Your task to perform on an android device: Open network settings Image 0: 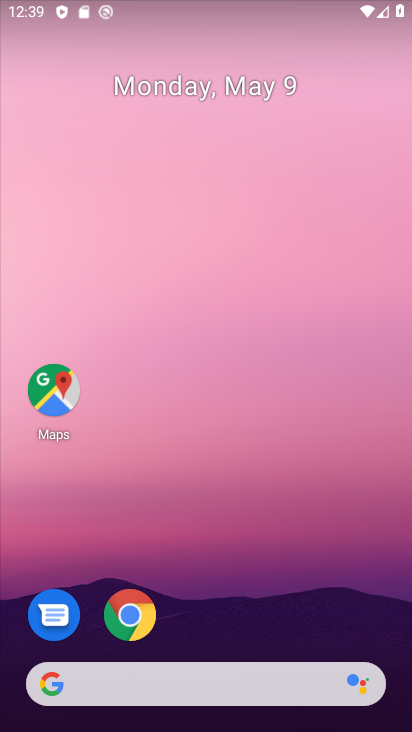
Step 0: press back button
Your task to perform on an android device: Open network settings Image 1: 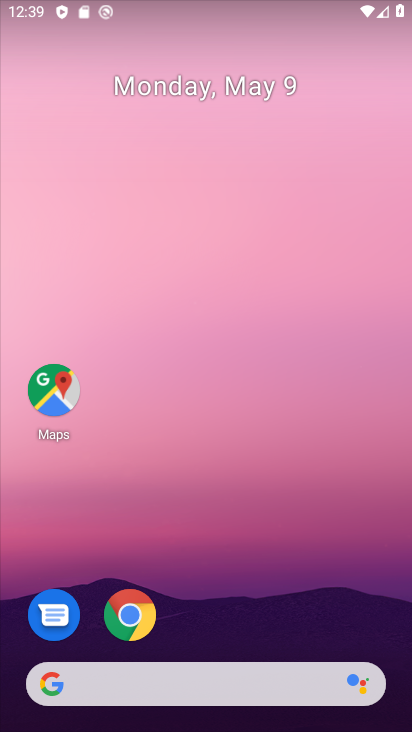
Step 1: drag from (253, 617) to (149, 1)
Your task to perform on an android device: Open network settings Image 2: 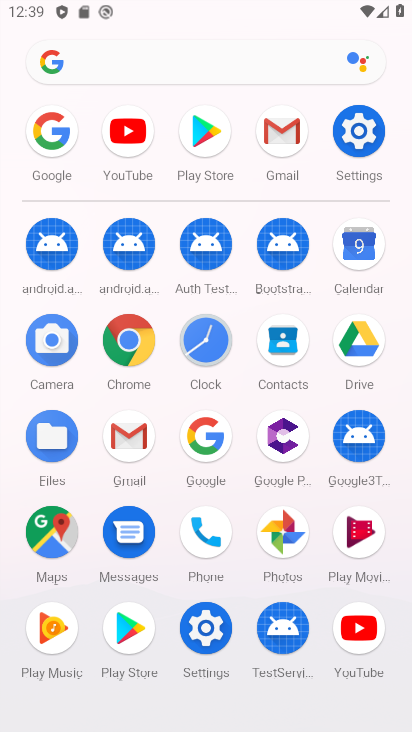
Step 2: click (358, 130)
Your task to perform on an android device: Open network settings Image 3: 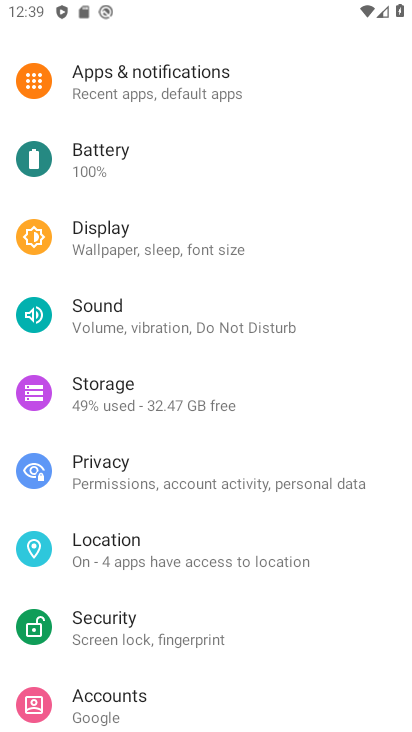
Step 3: drag from (194, 287) to (221, 396)
Your task to perform on an android device: Open network settings Image 4: 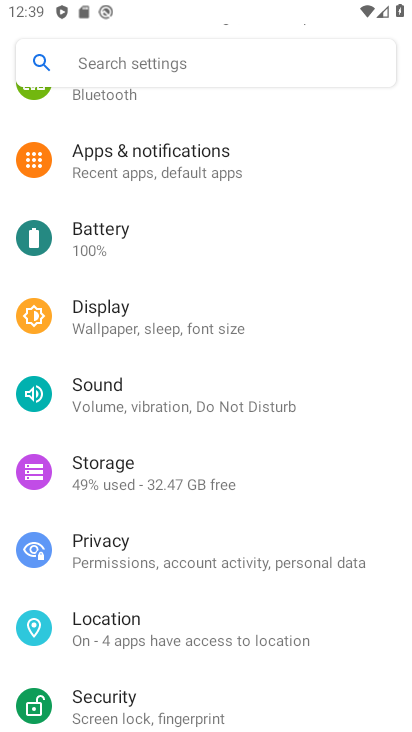
Step 4: drag from (203, 267) to (251, 417)
Your task to perform on an android device: Open network settings Image 5: 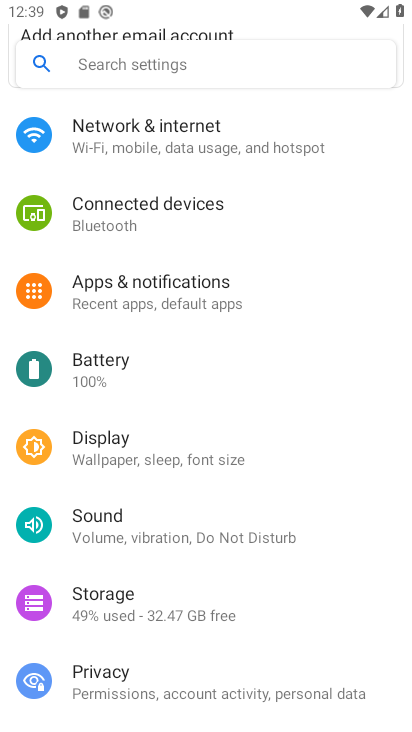
Step 5: drag from (224, 289) to (268, 396)
Your task to perform on an android device: Open network settings Image 6: 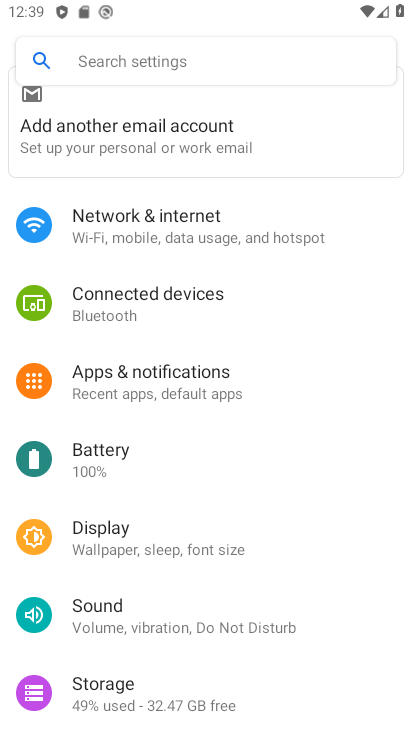
Step 6: click (211, 216)
Your task to perform on an android device: Open network settings Image 7: 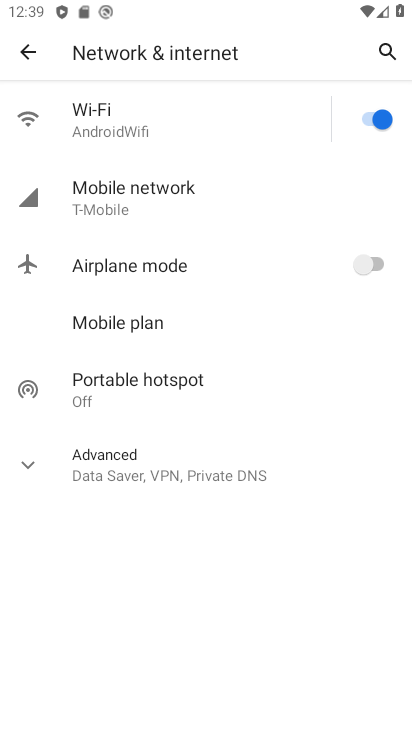
Step 7: click (179, 191)
Your task to perform on an android device: Open network settings Image 8: 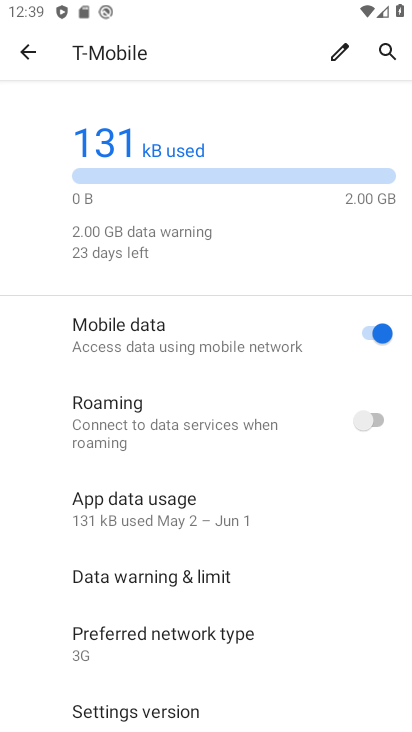
Step 8: task complete